Your task to perform on an android device: delete the emails in spam in the gmail app Image 0: 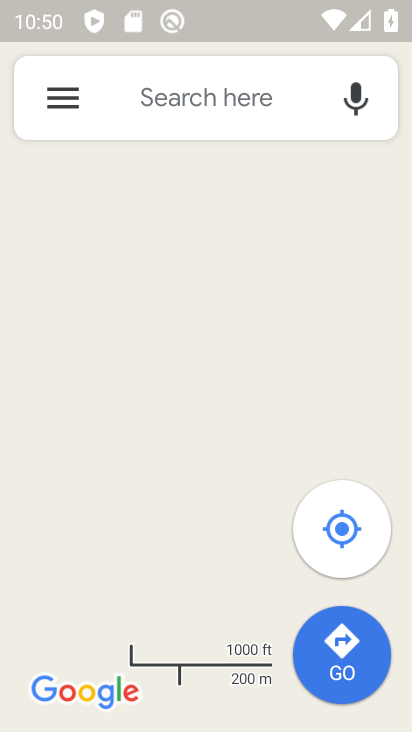
Step 0: press home button
Your task to perform on an android device: delete the emails in spam in the gmail app Image 1: 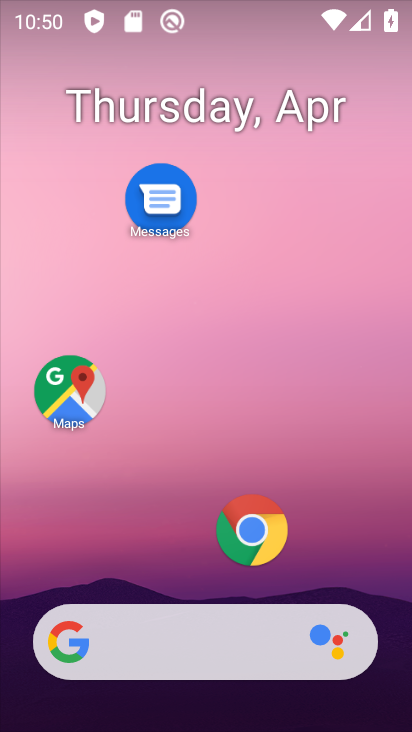
Step 1: drag from (222, 609) to (220, 167)
Your task to perform on an android device: delete the emails in spam in the gmail app Image 2: 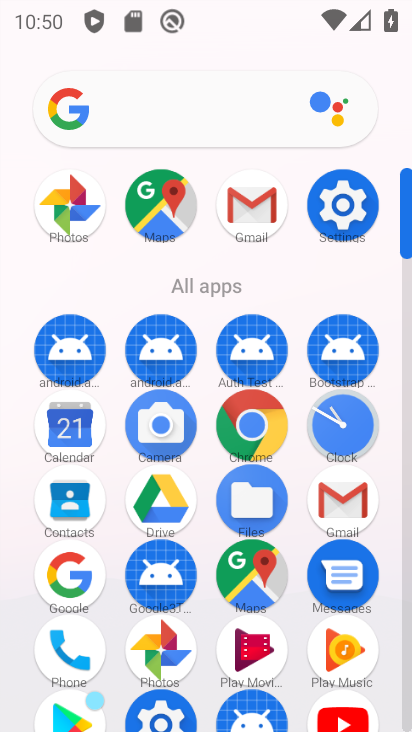
Step 2: click (343, 499)
Your task to perform on an android device: delete the emails in spam in the gmail app Image 3: 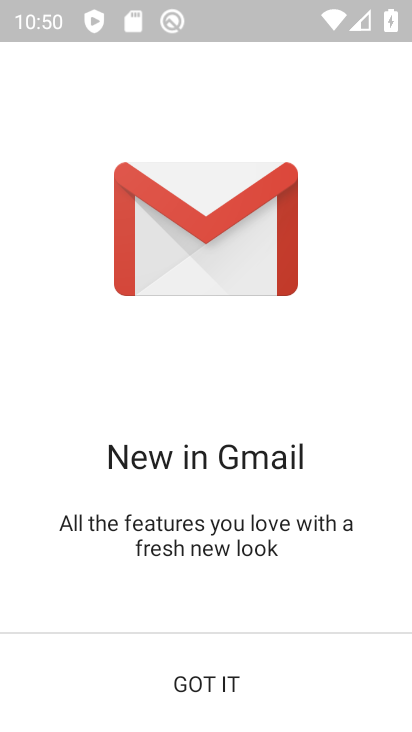
Step 3: click (201, 681)
Your task to perform on an android device: delete the emails in spam in the gmail app Image 4: 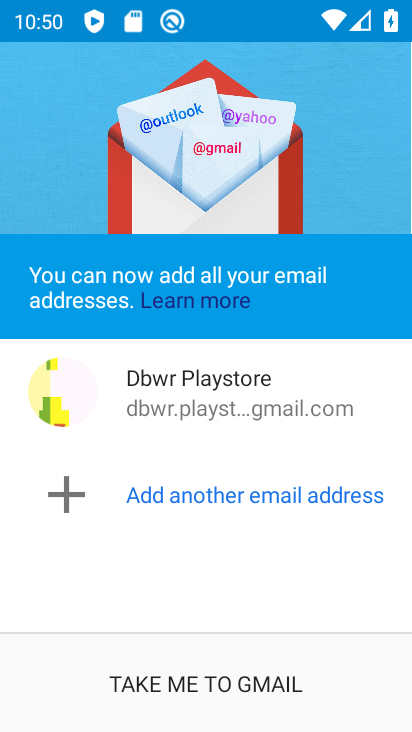
Step 4: click (201, 681)
Your task to perform on an android device: delete the emails in spam in the gmail app Image 5: 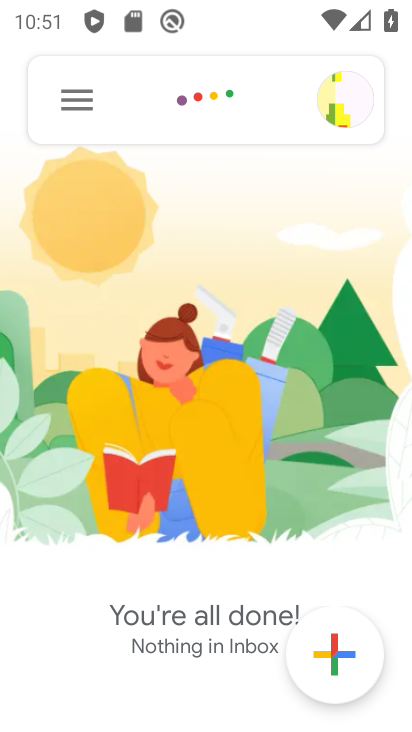
Step 5: click (78, 102)
Your task to perform on an android device: delete the emails in spam in the gmail app Image 6: 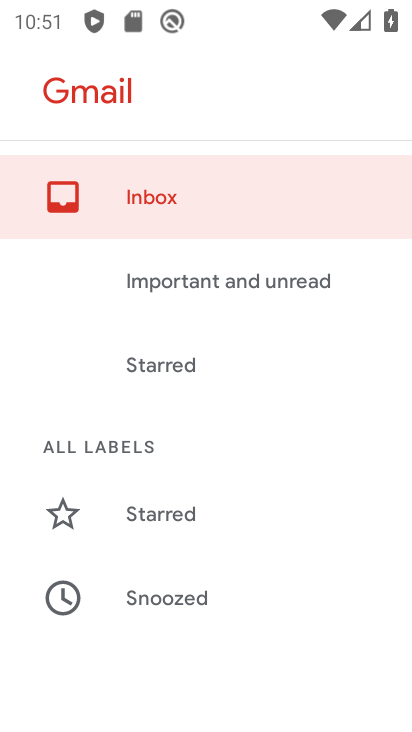
Step 6: drag from (189, 618) to (187, 192)
Your task to perform on an android device: delete the emails in spam in the gmail app Image 7: 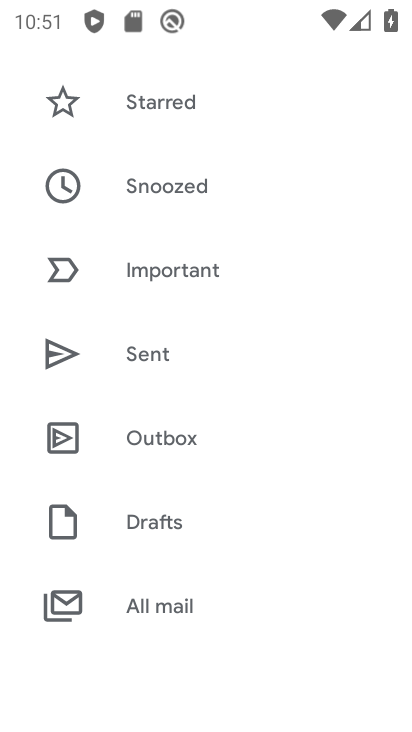
Step 7: drag from (162, 466) to (168, 194)
Your task to perform on an android device: delete the emails in spam in the gmail app Image 8: 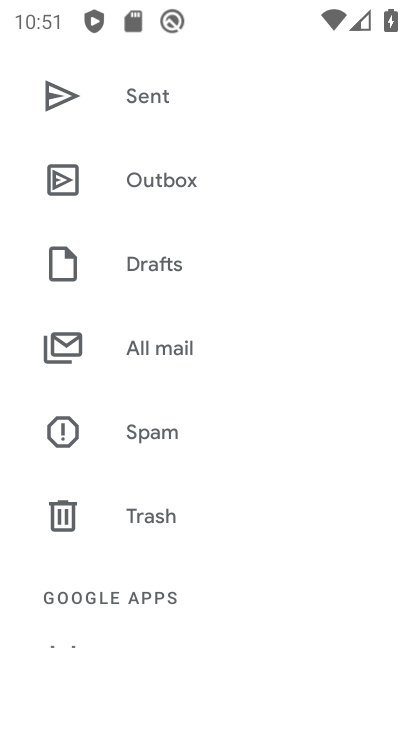
Step 8: click (155, 427)
Your task to perform on an android device: delete the emails in spam in the gmail app Image 9: 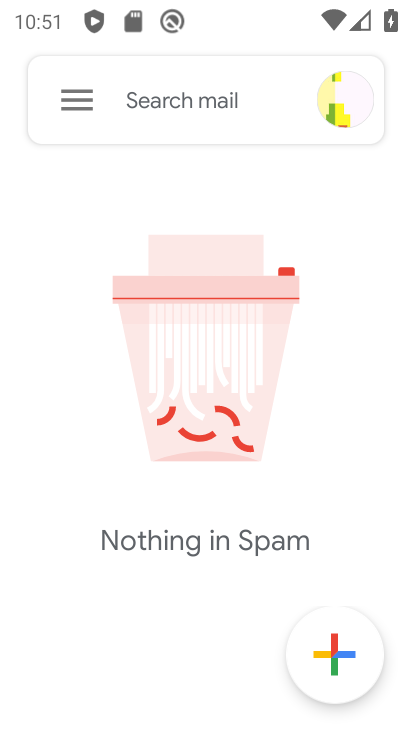
Step 9: task complete